Your task to perform on an android device: turn on sleep mode Image 0: 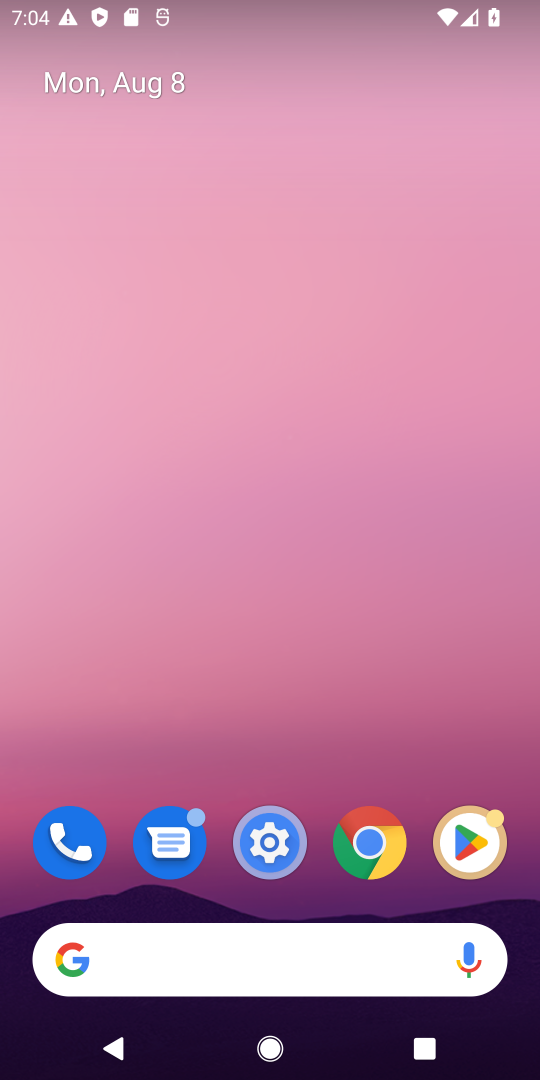
Step 0: click (277, 837)
Your task to perform on an android device: turn on sleep mode Image 1: 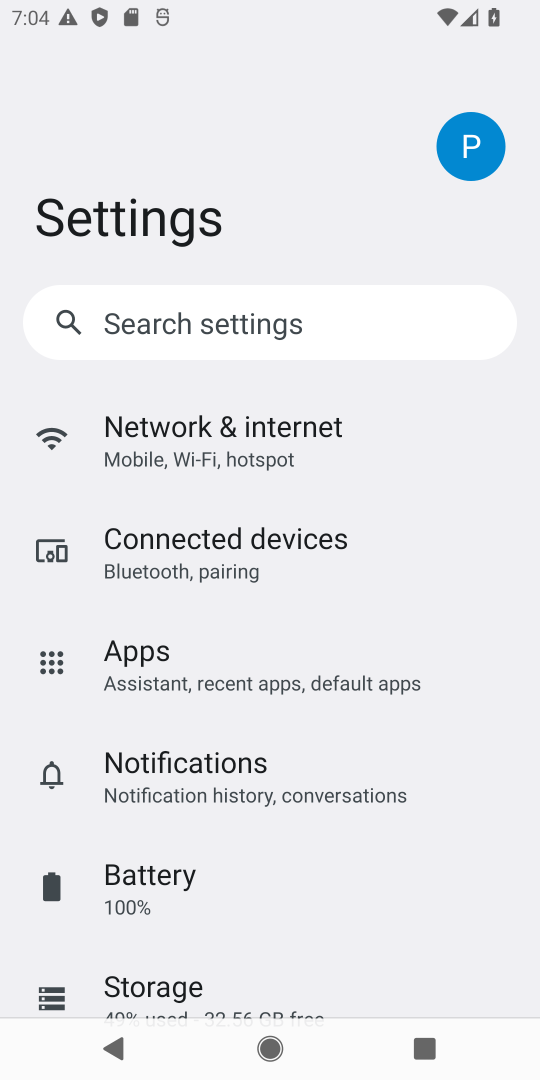
Step 1: drag from (284, 905) to (239, 151)
Your task to perform on an android device: turn on sleep mode Image 2: 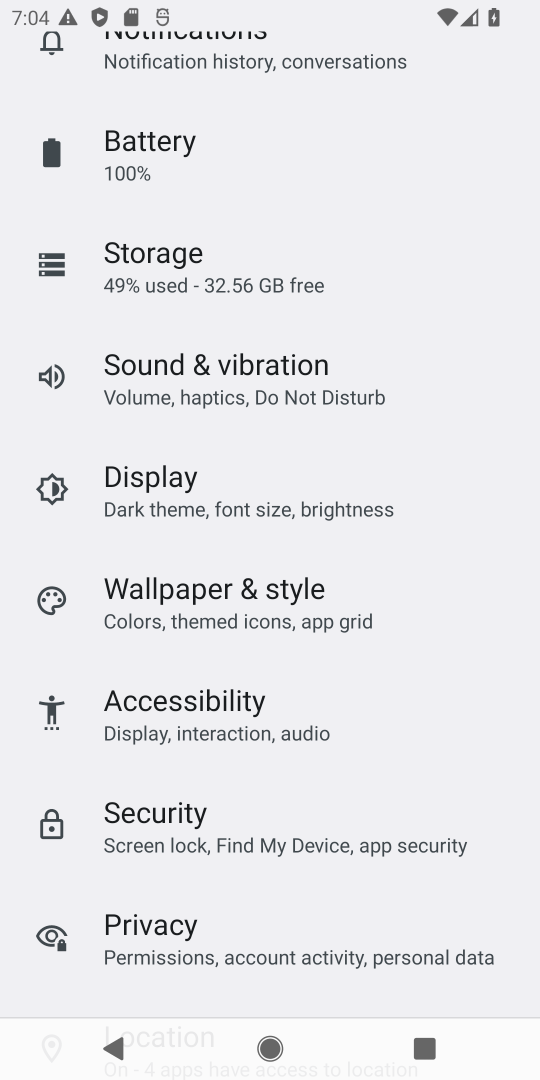
Step 2: click (239, 498)
Your task to perform on an android device: turn on sleep mode Image 3: 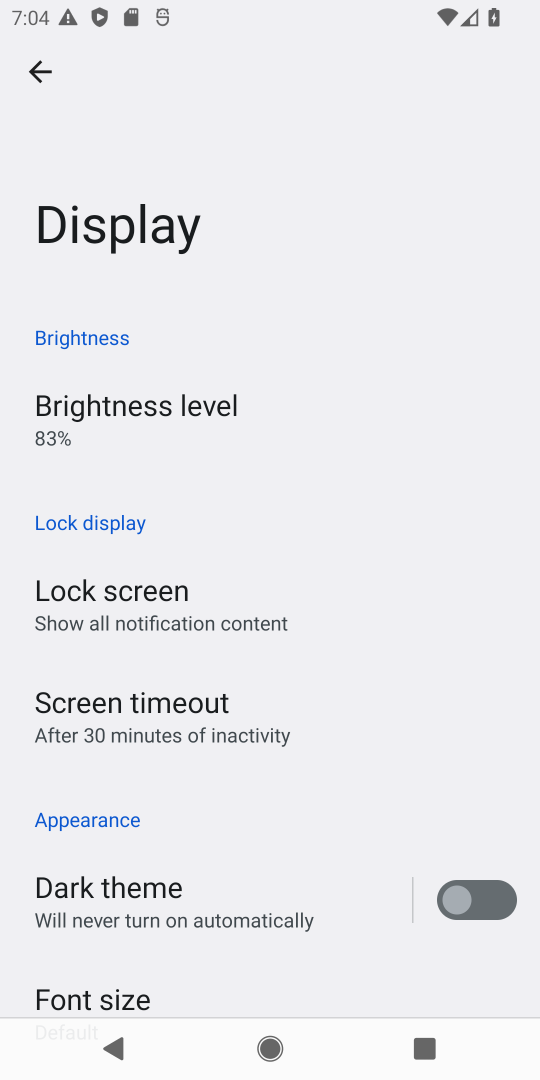
Step 3: task complete